Your task to perform on an android device: see tabs open on other devices in the chrome app Image 0: 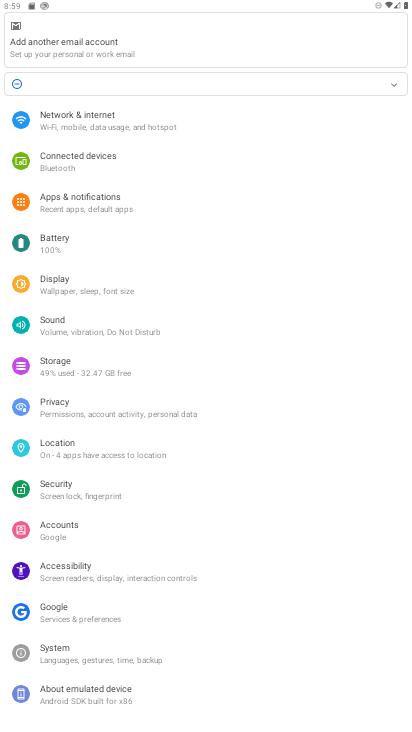
Step 0: press home button
Your task to perform on an android device: see tabs open on other devices in the chrome app Image 1: 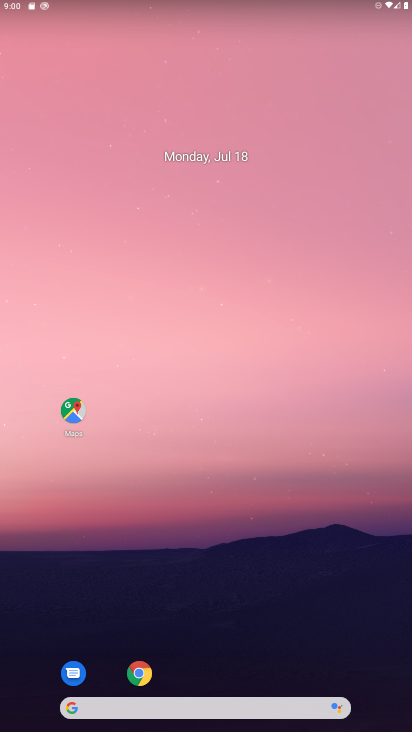
Step 1: drag from (320, 637) to (334, 71)
Your task to perform on an android device: see tabs open on other devices in the chrome app Image 2: 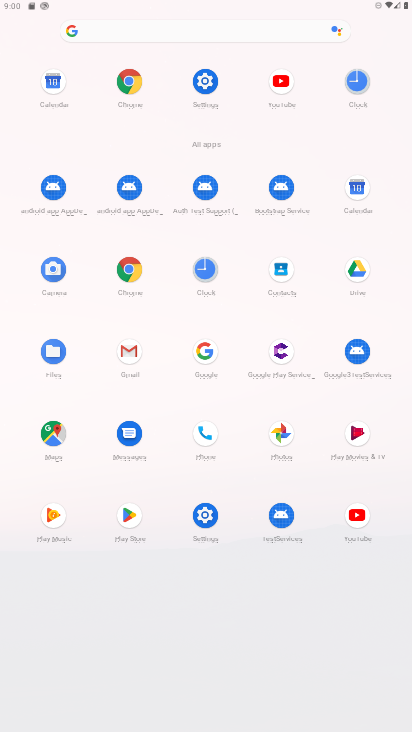
Step 2: click (120, 84)
Your task to perform on an android device: see tabs open on other devices in the chrome app Image 3: 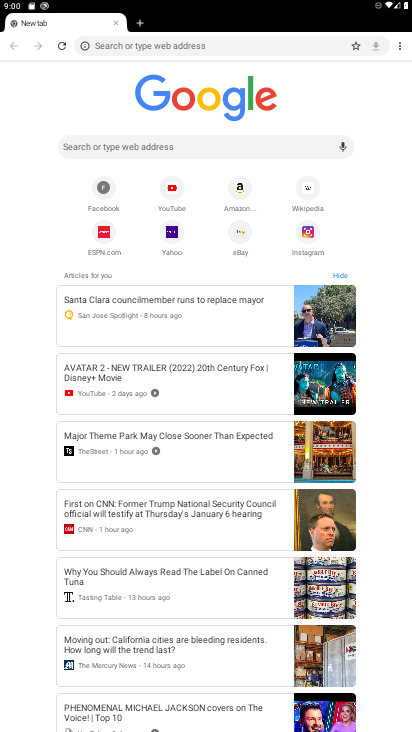
Step 3: task complete